Your task to perform on an android device: turn off javascript in the chrome app Image 0: 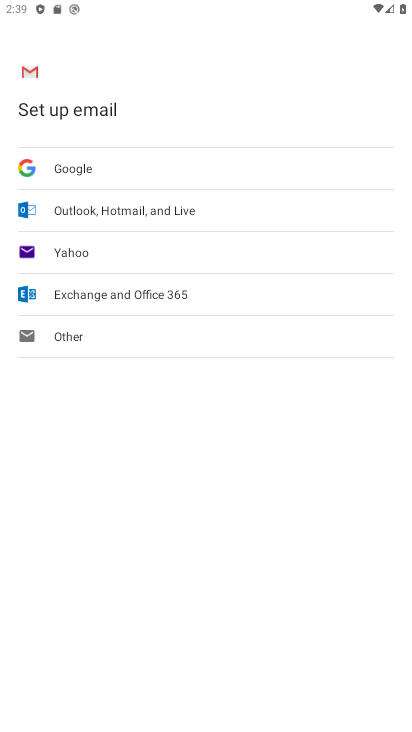
Step 0: press home button
Your task to perform on an android device: turn off javascript in the chrome app Image 1: 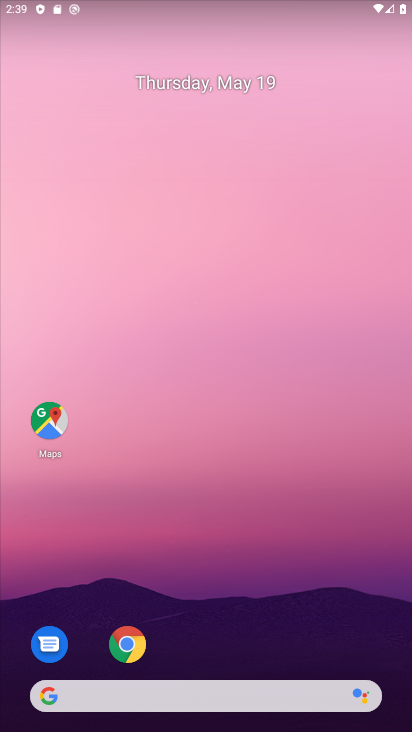
Step 1: drag from (265, 596) to (298, 153)
Your task to perform on an android device: turn off javascript in the chrome app Image 2: 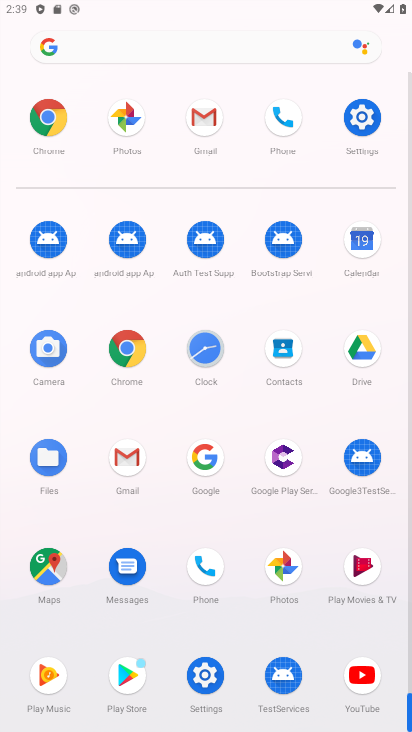
Step 2: click (127, 346)
Your task to perform on an android device: turn off javascript in the chrome app Image 3: 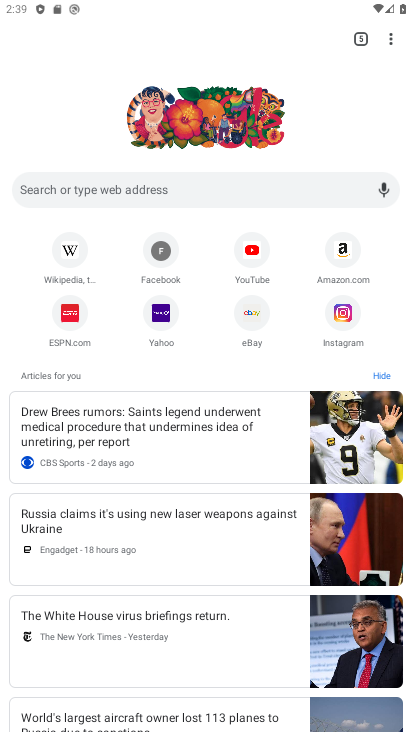
Step 3: click (390, 28)
Your task to perform on an android device: turn off javascript in the chrome app Image 4: 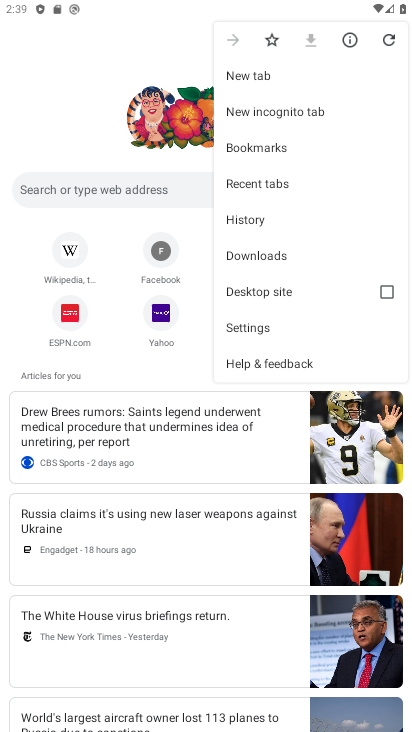
Step 4: click (268, 324)
Your task to perform on an android device: turn off javascript in the chrome app Image 5: 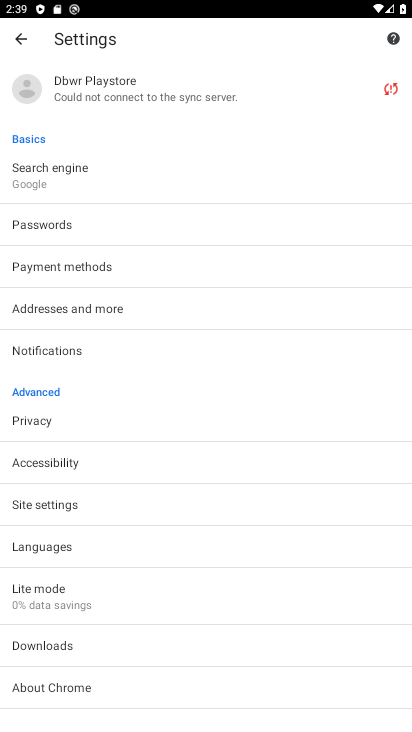
Step 5: click (101, 496)
Your task to perform on an android device: turn off javascript in the chrome app Image 6: 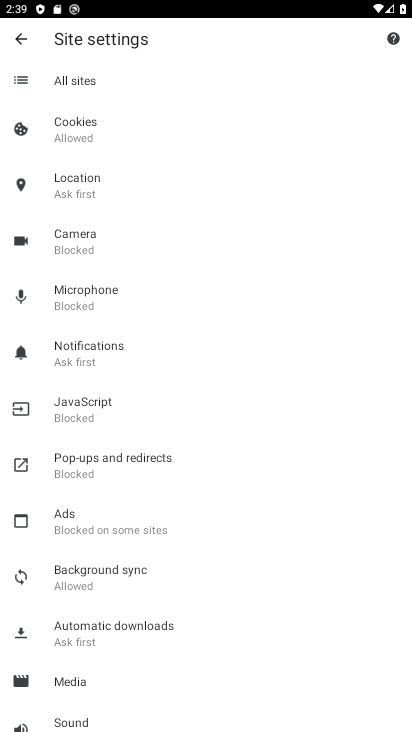
Step 6: click (99, 411)
Your task to perform on an android device: turn off javascript in the chrome app Image 7: 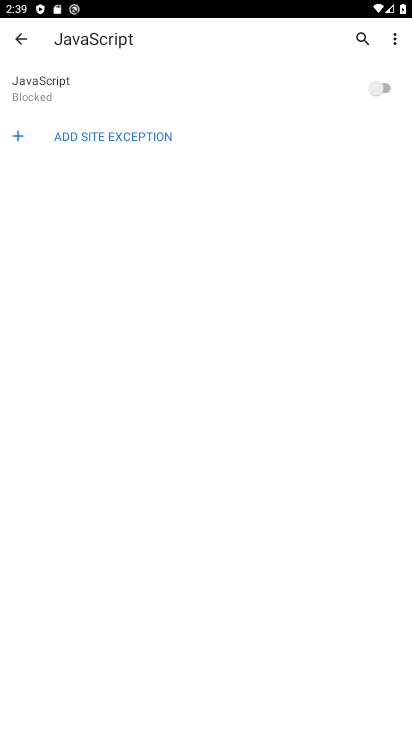
Step 7: task complete